Your task to perform on an android device: change your default location settings in chrome Image 0: 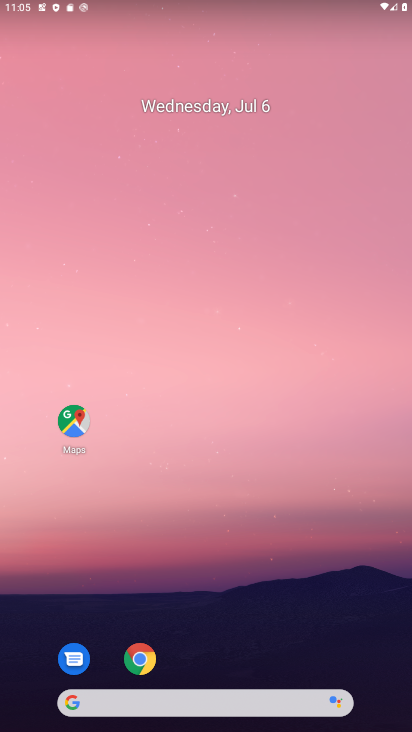
Step 0: click (143, 658)
Your task to perform on an android device: change your default location settings in chrome Image 1: 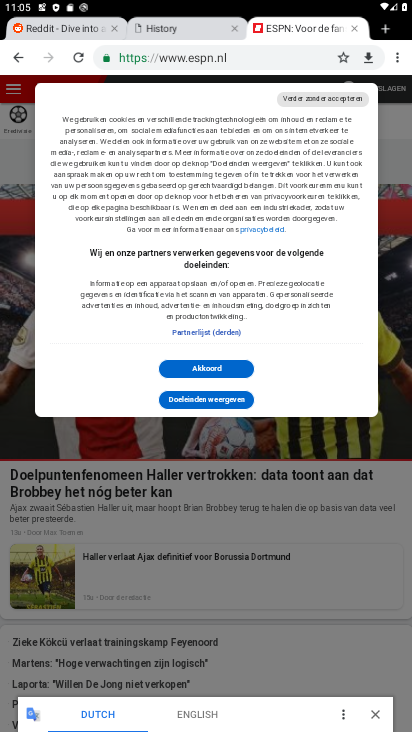
Step 1: click (390, 126)
Your task to perform on an android device: change your default location settings in chrome Image 2: 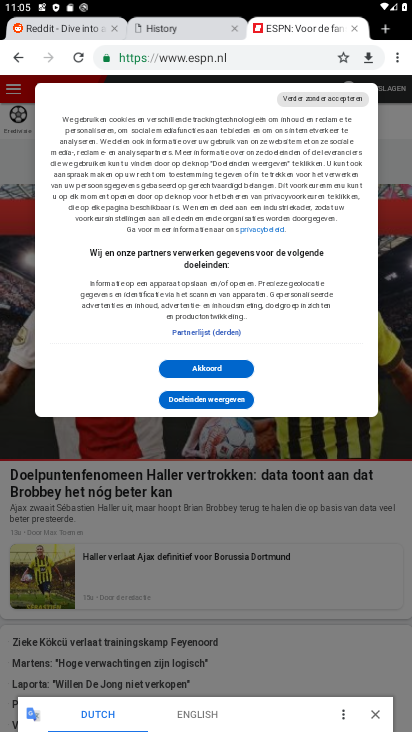
Step 2: drag from (400, 55) to (282, 380)
Your task to perform on an android device: change your default location settings in chrome Image 3: 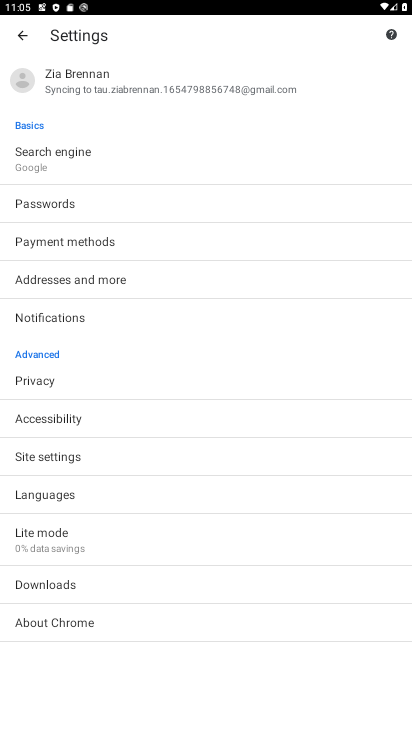
Step 3: drag from (76, 568) to (154, 275)
Your task to perform on an android device: change your default location settings in chrome Image 4: 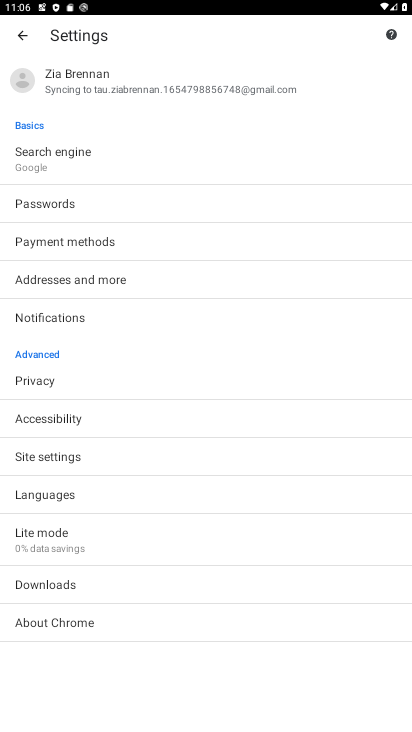
Step 4: click (53, 457)
Your task to perform on an android device: change your default location settings in chrome Image 5: 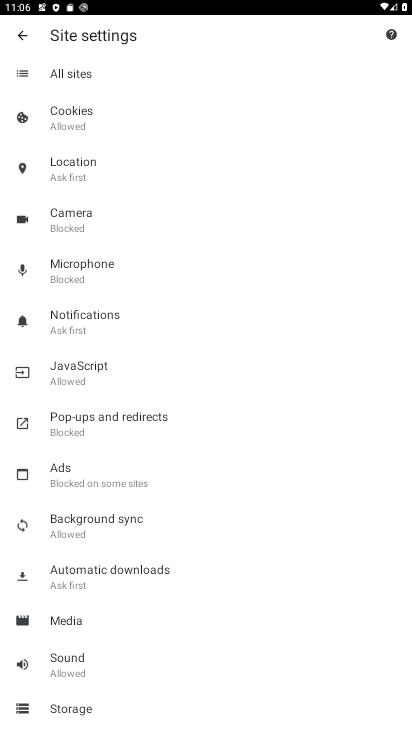
Step 5: click (90, 167)
Your task to perform on an android device: change your default location settings in chrome Image 6: 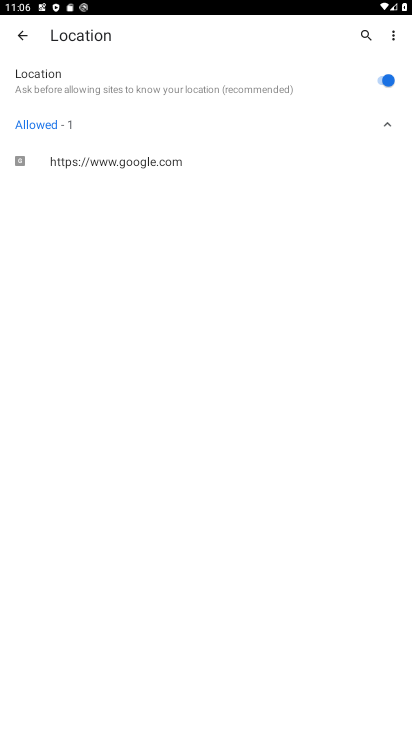
Step 6: click (385, 84)
Your task to perform on an android device: change your default location settings in chrome Image 7: 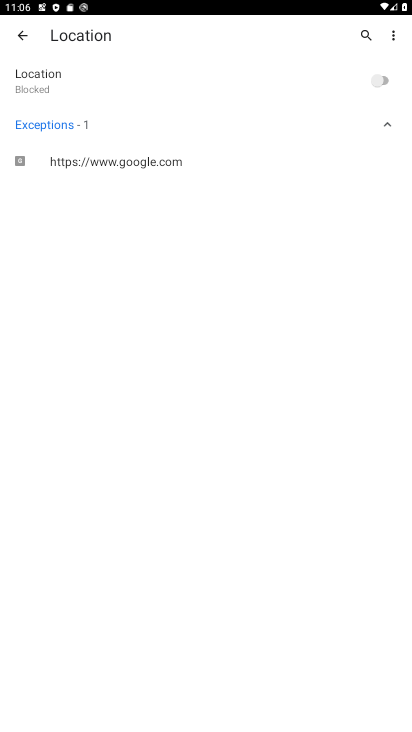
Step 7: task complete